Your task to perform on an android device: Open Yahoo.com Image 0: 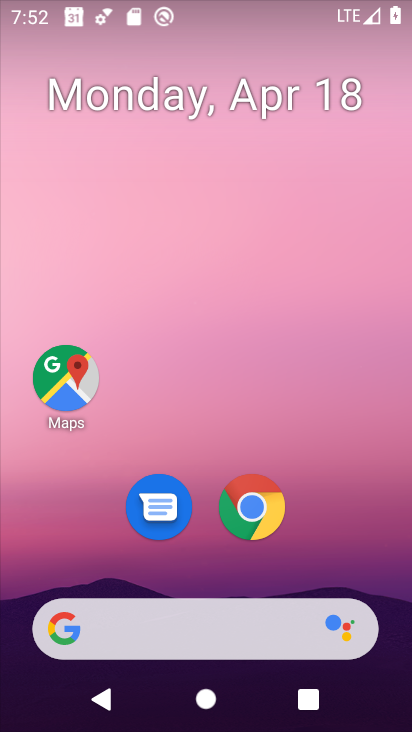
Step 0: drag from (8, 531) to (253, 15)
Your task to perform on an android device: Open Yahoo.com Image 1: 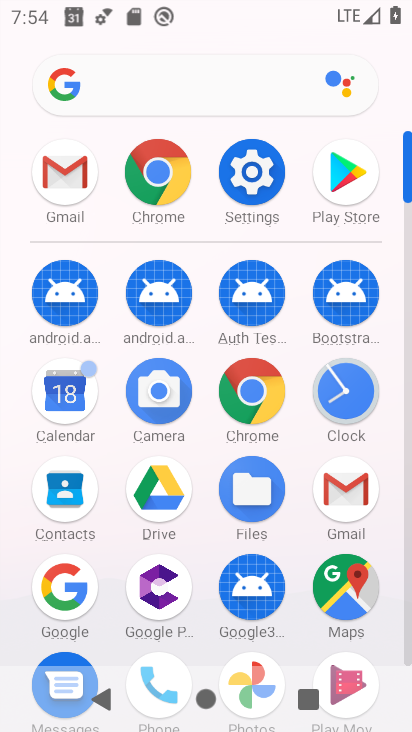
Step 1: click (146, 183)
Your task to perform on an android device: Open Yahoo.com Image 2: 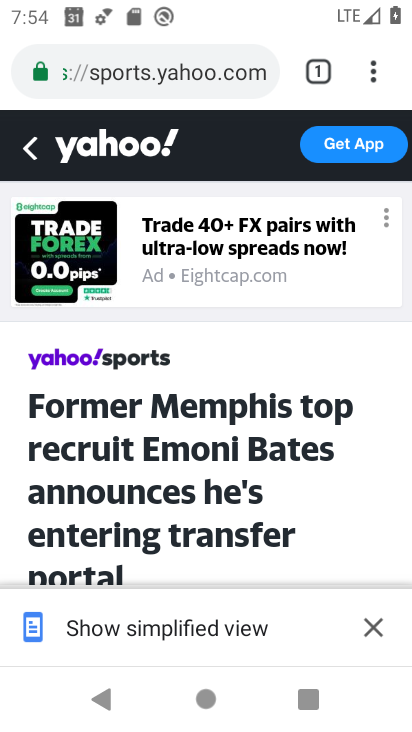
Step 2: task complete